Your task to perform on an android device: Open display settings Image 0: 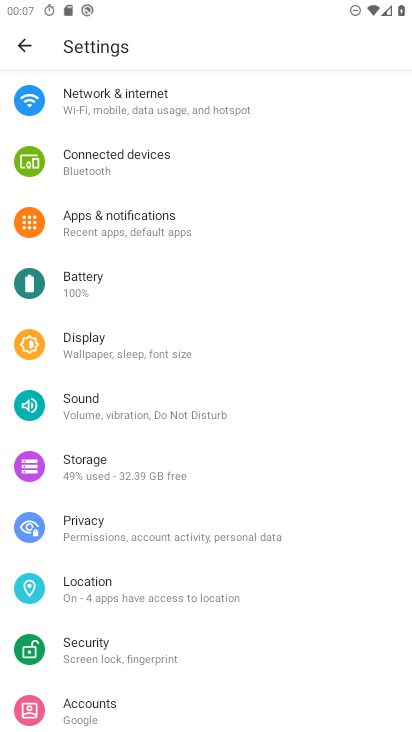
Step 0: press home button
Your task to perform on an android device: Open display settings Image 1: 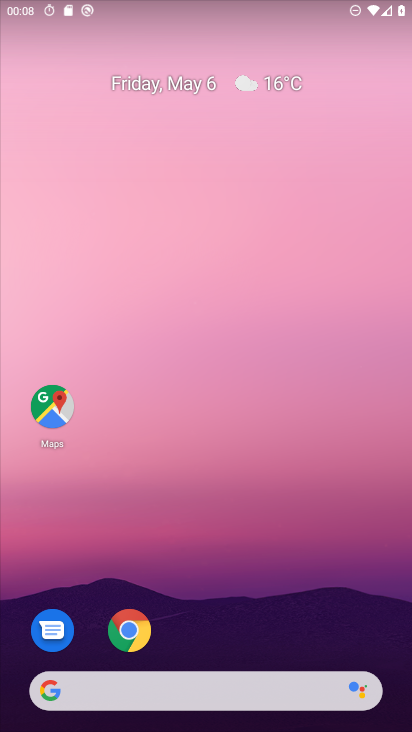
Step 1: drag from (340, 526) to (222, 75)
Your task to perform on an android device: Open display settings Image 2: 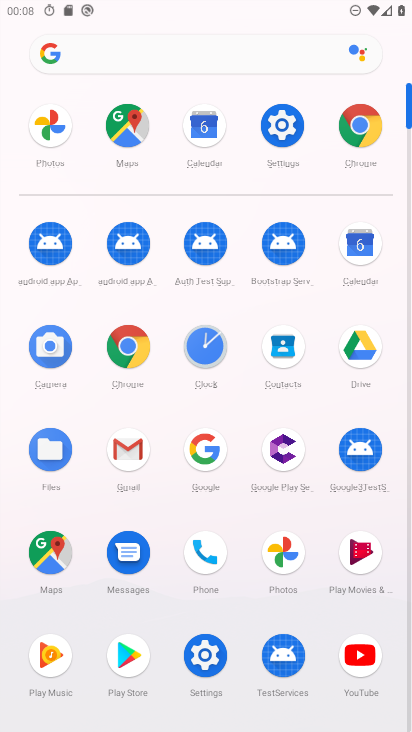
Step 2: click (289, 126)
Your task to perform on an android device: Open display settings Image 3: 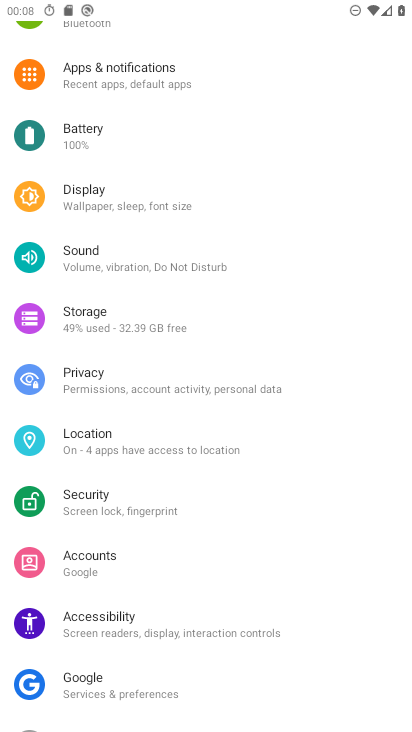
Step 3: click (152, 200)
Your task to perform on an android device: Open display settings Image 4: 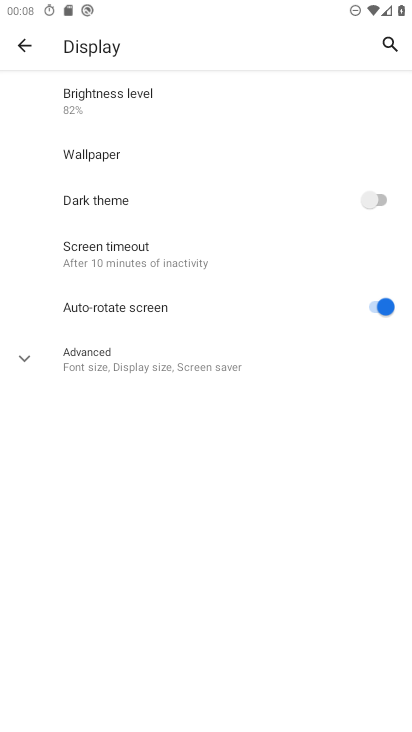
Step 4: task complete